Your task to perform on an android device: open wifi settings Image 0: 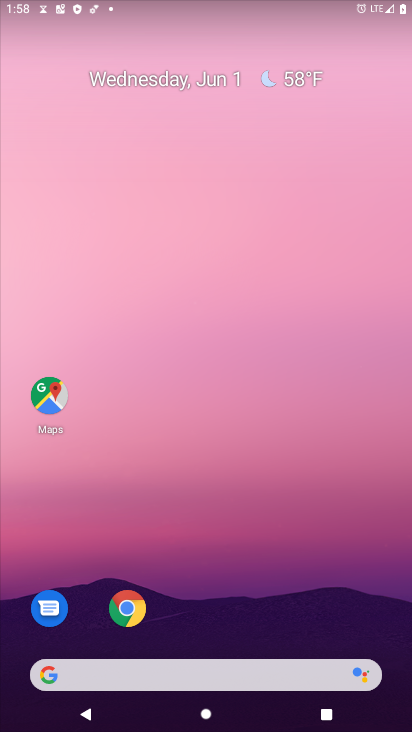
Step 0: drag from (283, 489) to (359, 164)
Your task to perform on an android device: open wifi settings Image 1: 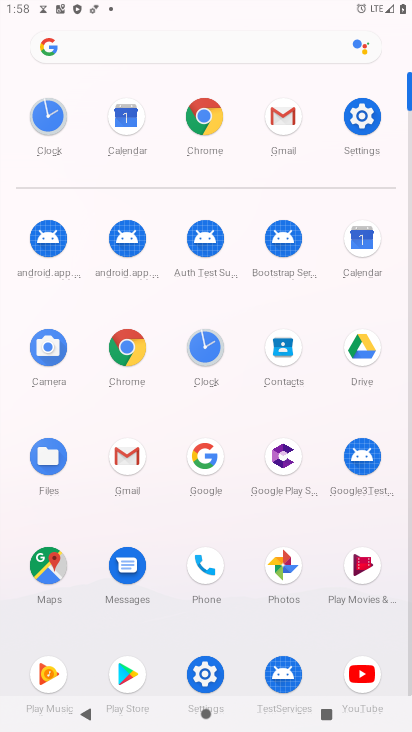
Step 1: click (357, 105)
Your task to perform on an android device: open wifi settings Image 2: 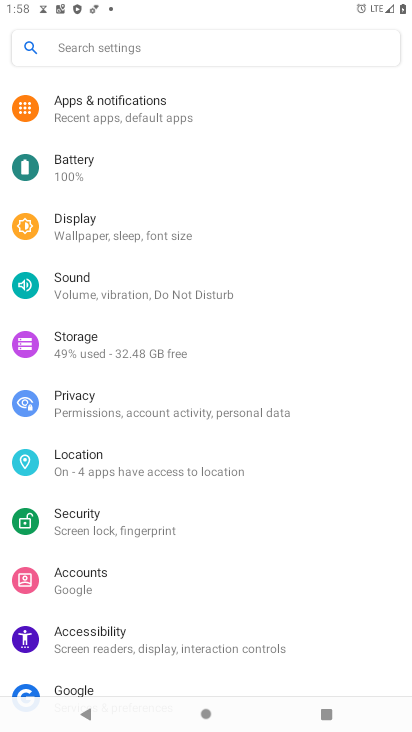
Step 2: drag from (197, 147) to (176, 516)
Your task to perform on an android device: open wifi settings Image 3: 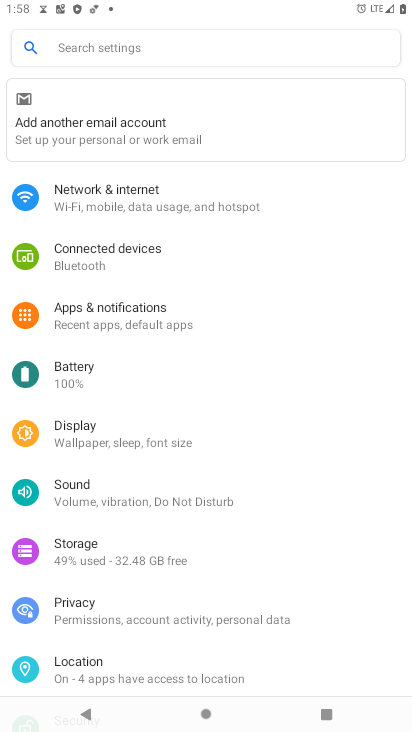
Step 3: click (185, 205)
Your task to perform on an android device: open wifi settings Image 4: 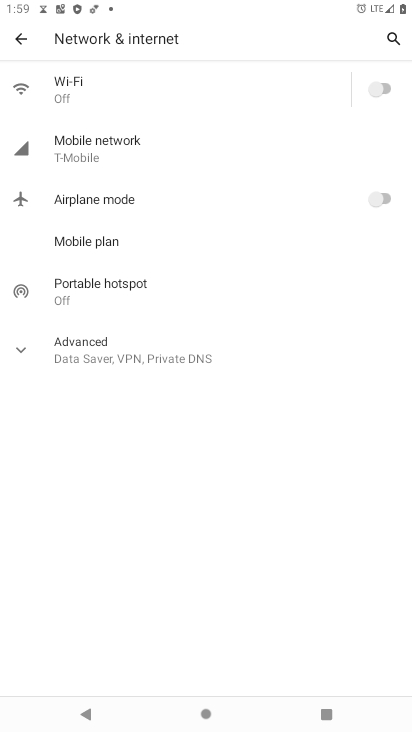
Step 4: click (123, 95)
Your task to perform on an android device: open wifi settings Image 5: 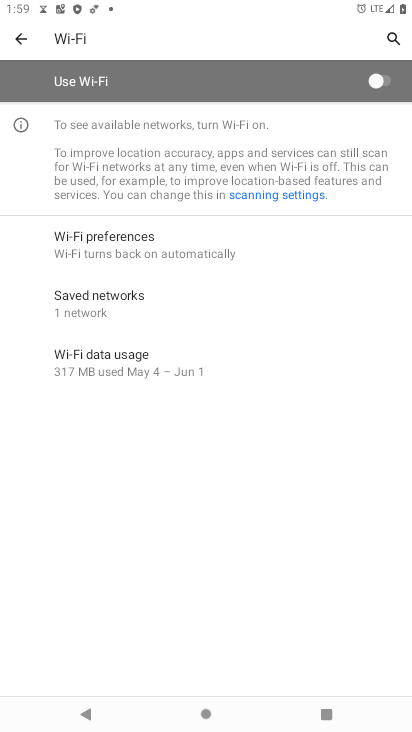
Step 5: task complete